Your task to perform on an android device: move a message to another label in the gmail app Image 0: 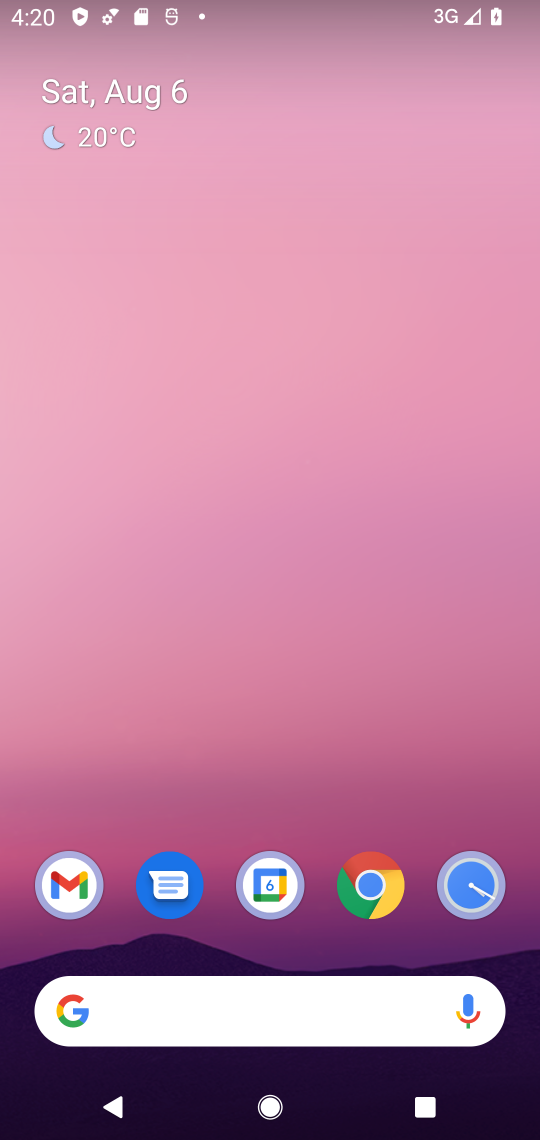
Step 0: drag from (428, 859) to (317, 86)
Your task to perform on an android device: move a message to another label in the gmail app Image 1: 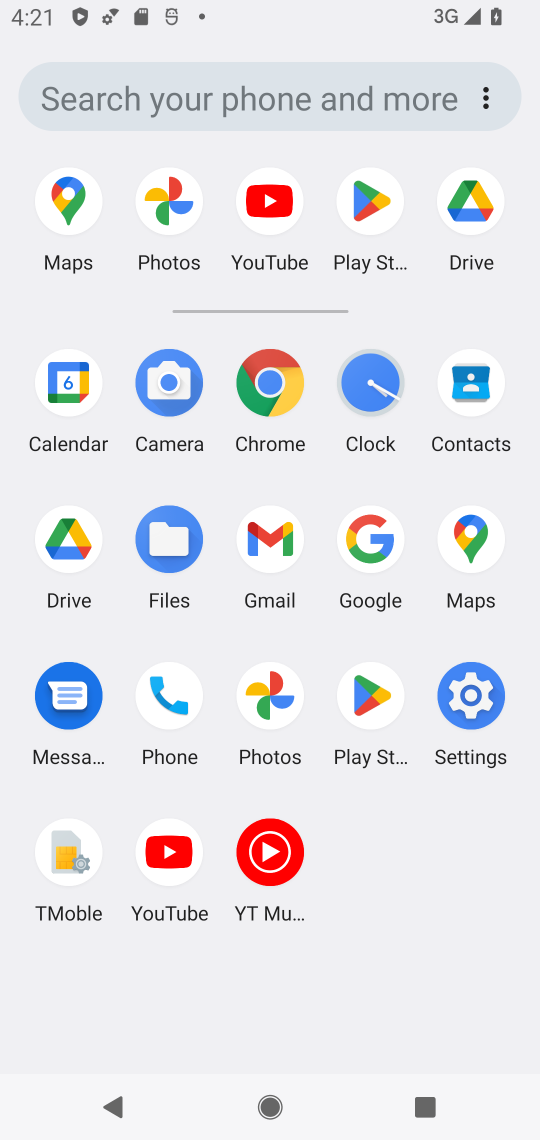
Step 1: click (294, 541)
Your task to perform on an android device: move a message to another label in the gmail app Image 2: 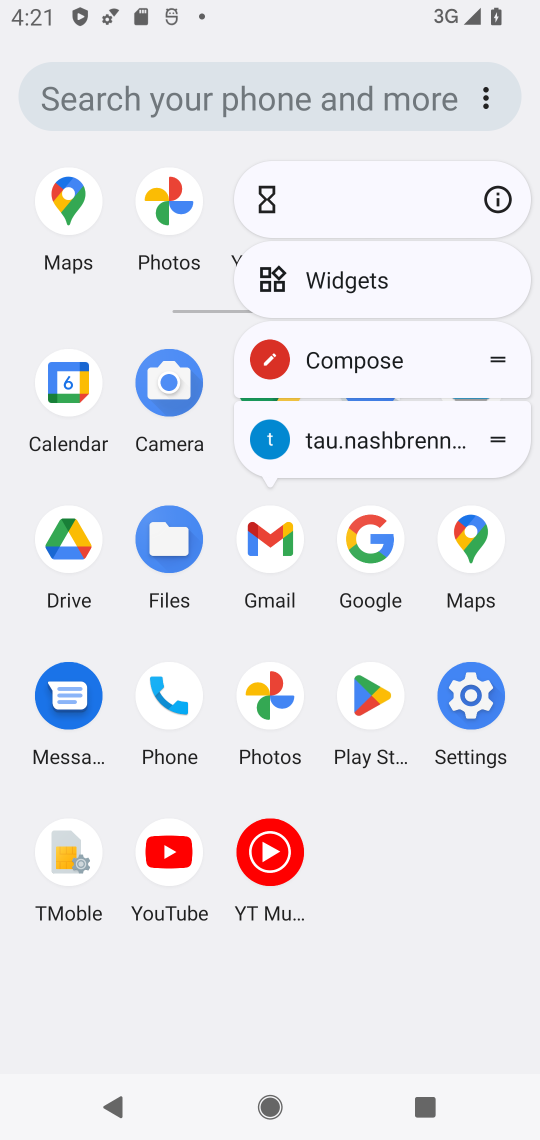
Step 2: task complete